Your task to perform on an android device: Open the calendar app, open the side menu, and click the "Day" option Image 0: 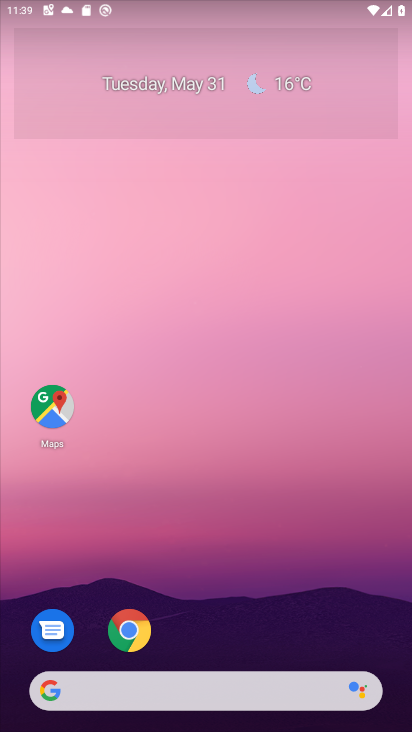
Step 0: drag from (297, 581) to (301, 137)
Your task to perform on an android device: Open the calendar app, open the side menu, and click the "Day" option Image 1: 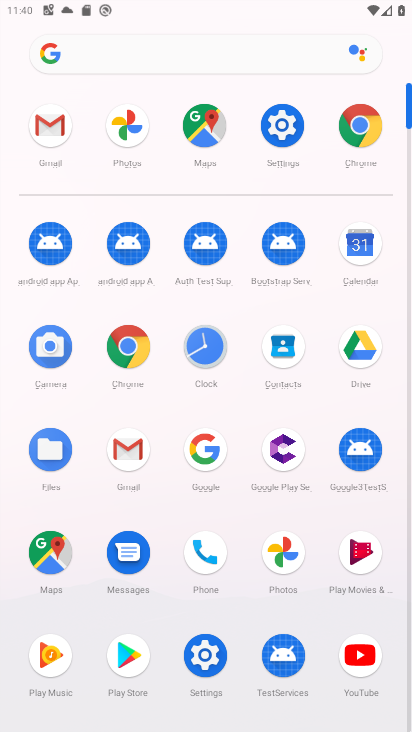
Step 1: click (364, 245)
Your task to perform on an android device: Open the calendar app, open the side menu, and click the "Day" option Image 2: 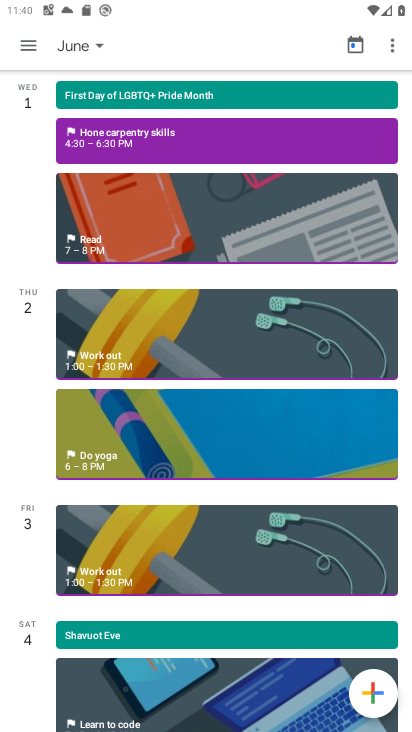
Step 2: click (22, 37)
Your task to perform on an android device: Open the calendar app, open the side menu, and click the "Day" option Image 3: 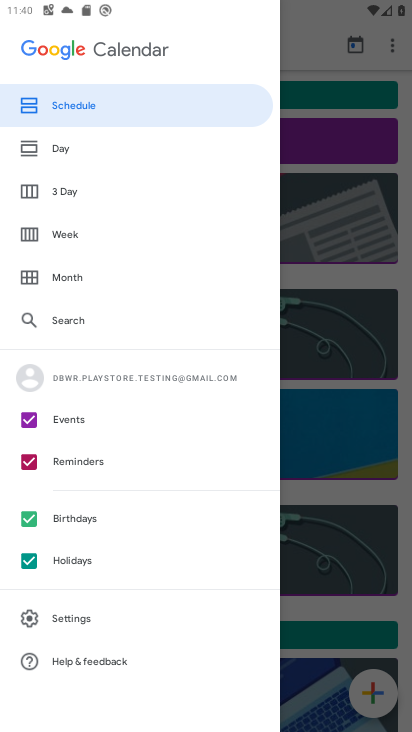
Step 3: click (75, 153)
Your task to perform on an android device: Open the calendar app, open the side menu, and click the "Day" option Image 4: 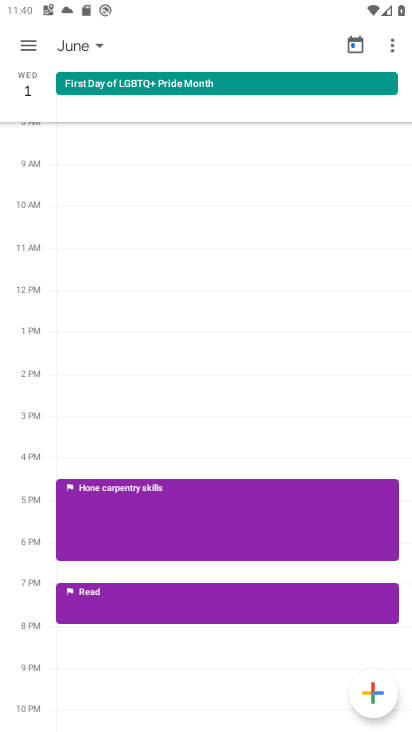
Step 4: task complete